Your task to perform on an android device: all mails in gmail Image 0: 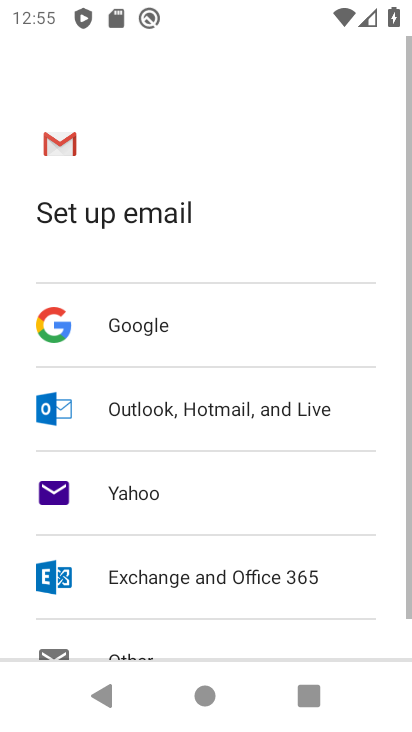
Step 0: press home button
Your task to perform on an android device: all mails in gmail Image 1: 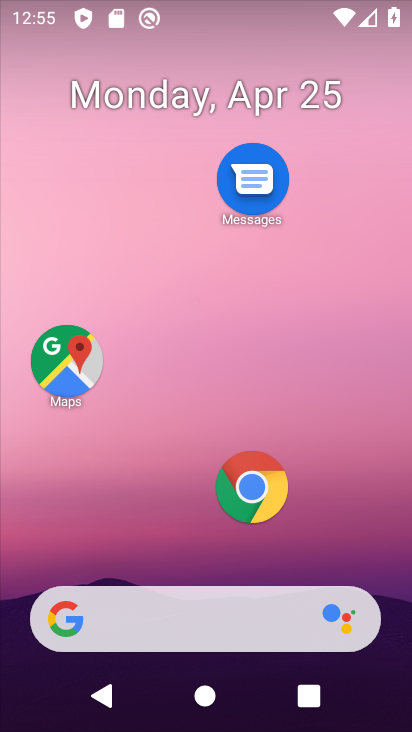
Step 1: drag from (208, 577) to (312, 36)
Your task to perform on an android device: all mails in gmail Image 2: 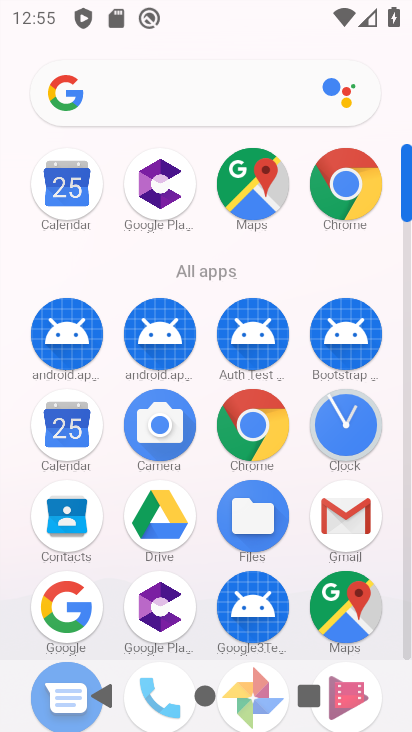
Step 2: click (332, 536)
Your task to perform on an android device: all mails in gmail Image 3: 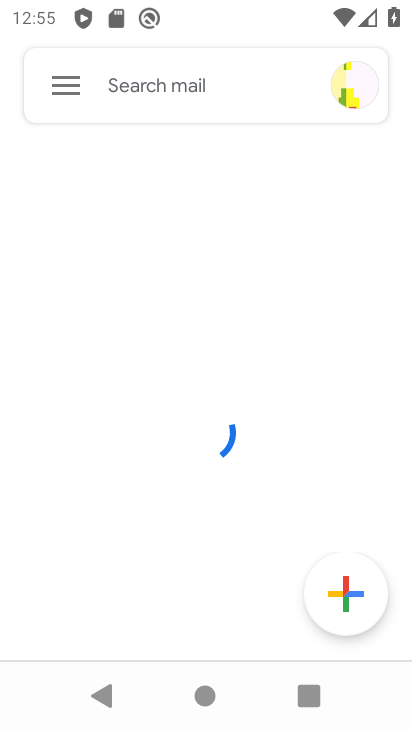
Step 3: click (76, 89)
Your task to perform on an android device: all mails in gmail Image 4: 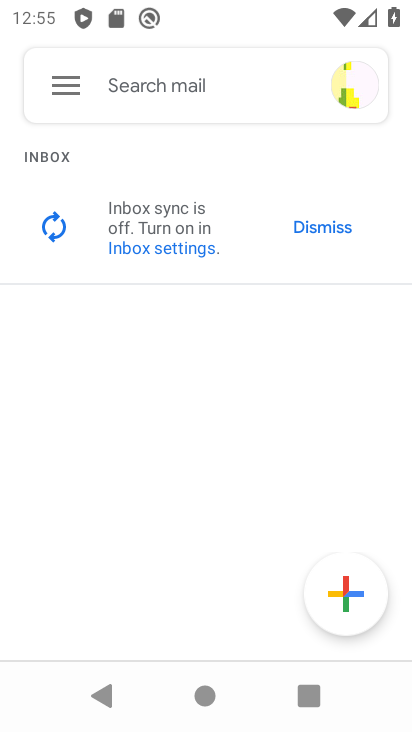
Step 4: click (55, 86)
Your task to perform on an android device: all mails in gmail Image 5: 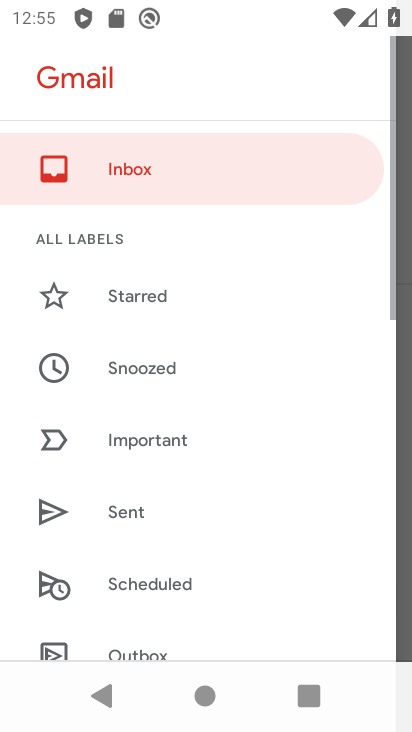
Step 5: drag from (294, 581) to (242, 162)
Your task to perform on an android device: all mails in gmail Image 6: 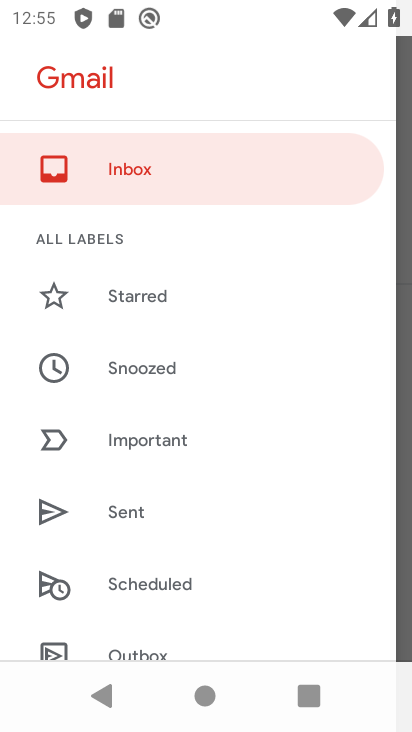
Step 6: drag from (194, 641) to (209, 205)
Your task to perform on an android device: all mails in gmail Image 7: 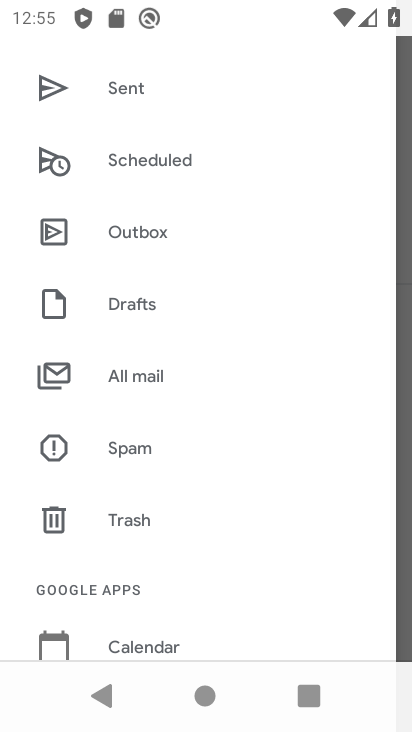
Step 7: click (168, 372)
Your task to perform on an android device: all mails in gmail Image 8: 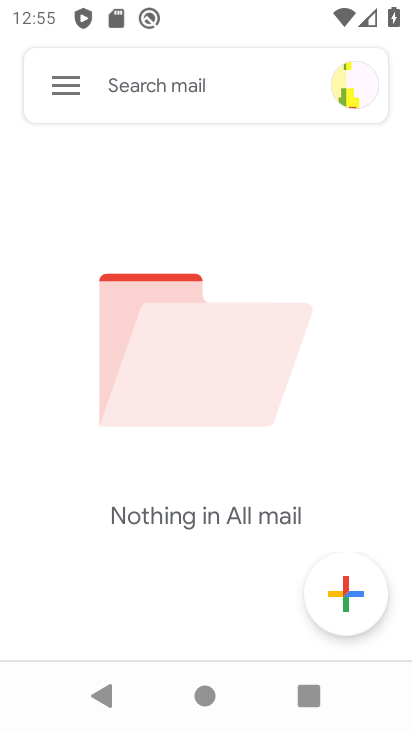
Step 8: task complete